Your task to perform on an android device: see sites visited before in the chrome app Image 0: 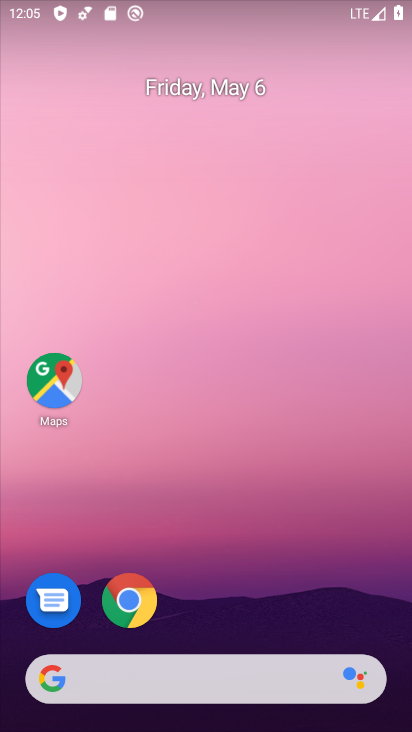
Step 0: drag from (334, 616) to (269, 96)
Your task to perform on an android device: see sites visited before in the chrome app Image 1: 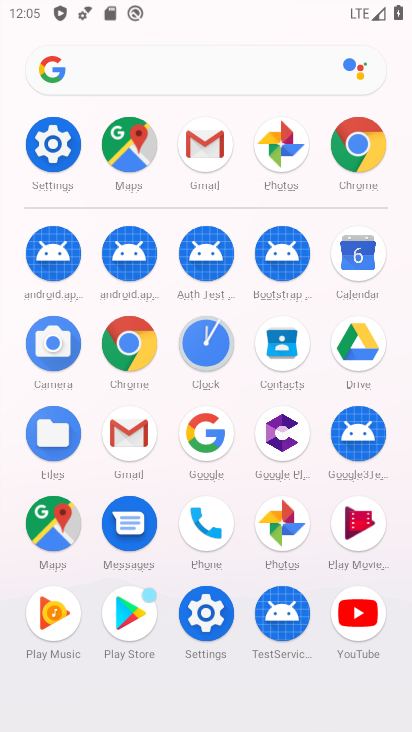
Step 1: click (359, 153)
Your task to perform on an android device: see sites visited before in the chrome app Image 2: 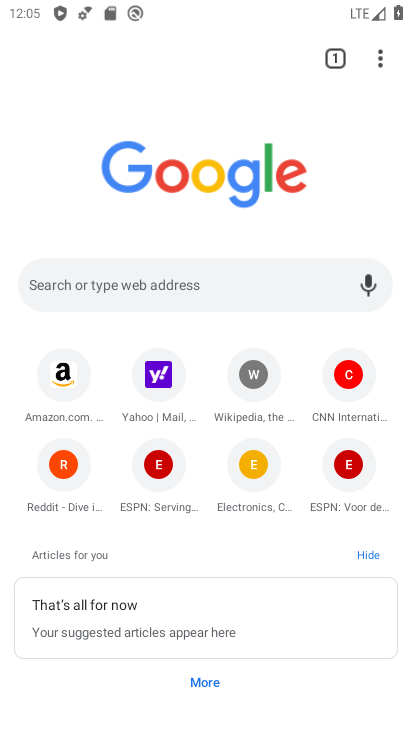
Step 2: click (377, 57)
Your task to perform on an android device: see sites visited before in the chrome app Image 3: 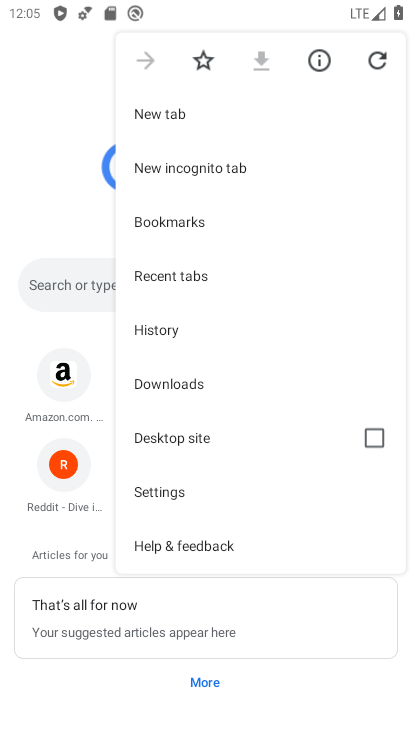
Step 3: click (254, 330)
Your task to perform on an android device: see sites visited before in the chrome app Image 4: 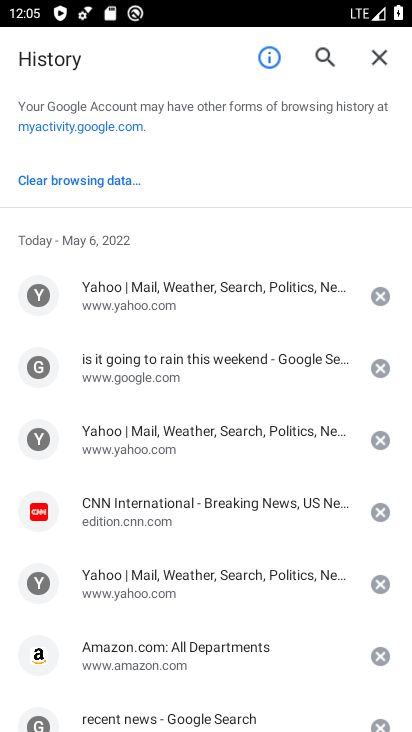
Step 4: click (136, 313)
Your task to perform on an android device: see sites visited before in the chrome app Image 5: 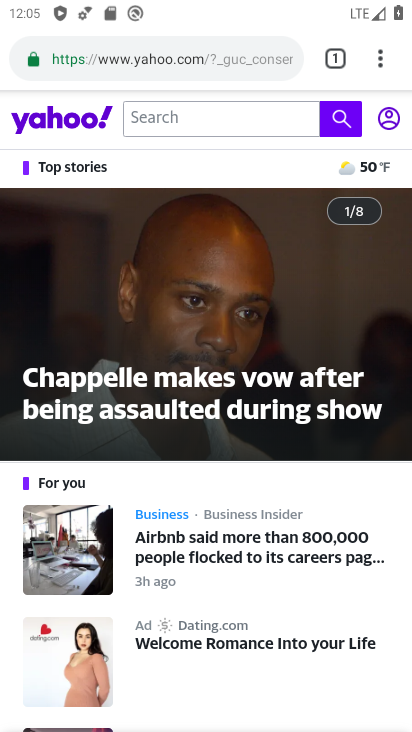
Step 5: task complete